Your task to perform on an android device: visit the assistant section in the google photos Image 0: 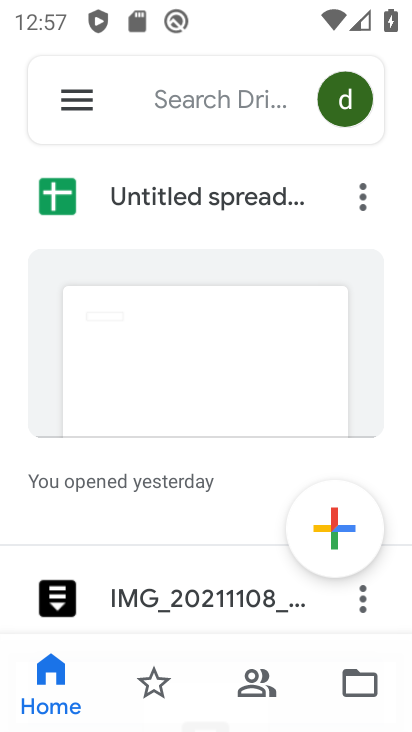
Step 0: press home button
Your task to perform on an android device: visit the assistant section in the google photos Image 1: 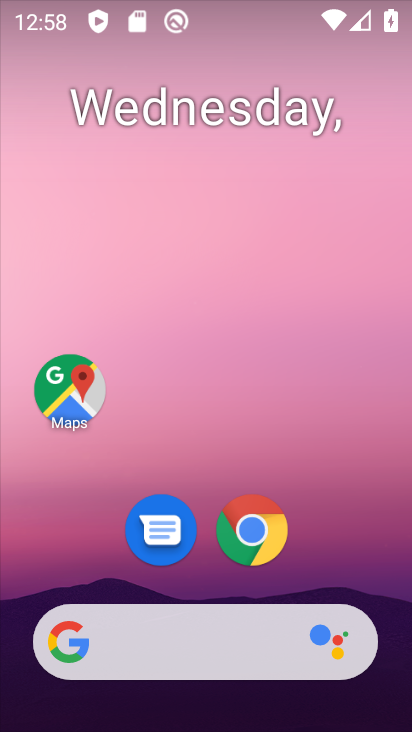
Step 1: drag from (203, 570) to (218, 28)
Your task to perform on an android device: visit the assistant section in the google photos Image 2: 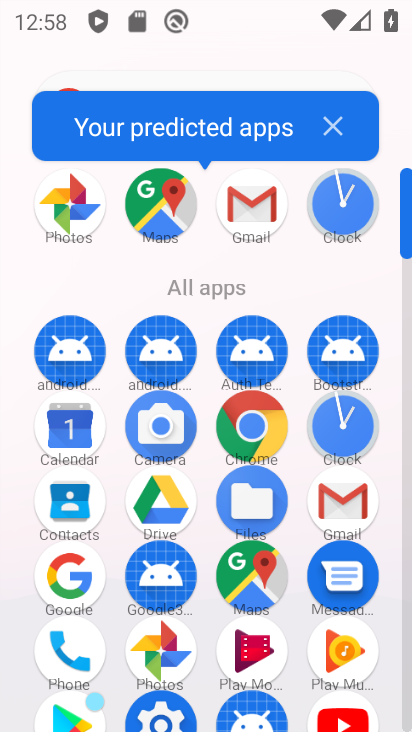
Step 2: click (94, 196)
Your task to perform on an android device: visit the assistant section in the google photos Image 3: 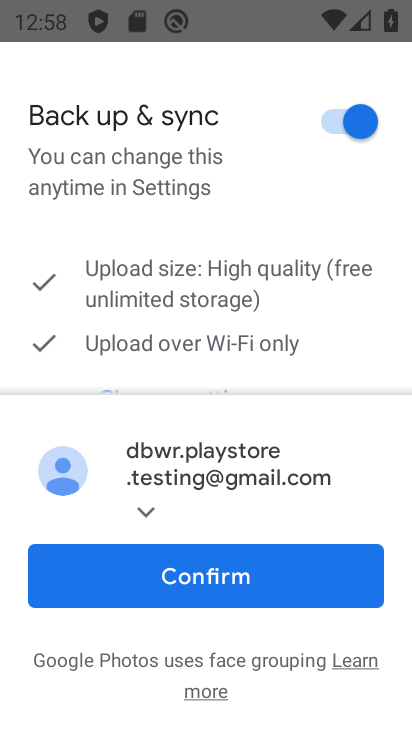
Step 3: click (94, 196)
Your task to perform on an android device: visit the assistant section in the google photos Image 4: 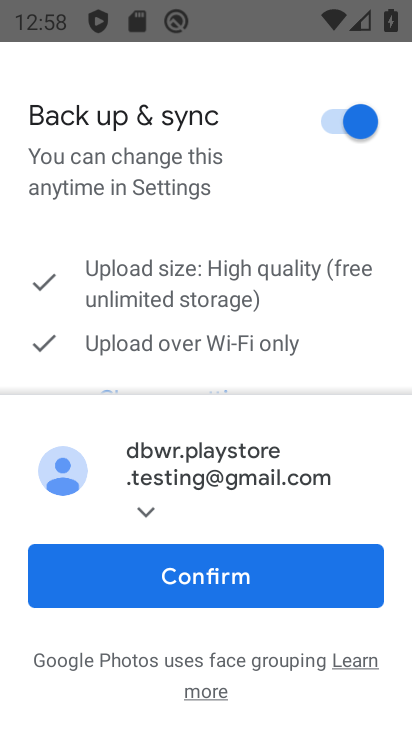
Step 4: click (258, 570)
Your task to perform on an android device: visit the assistant section in the google photos Image 5: 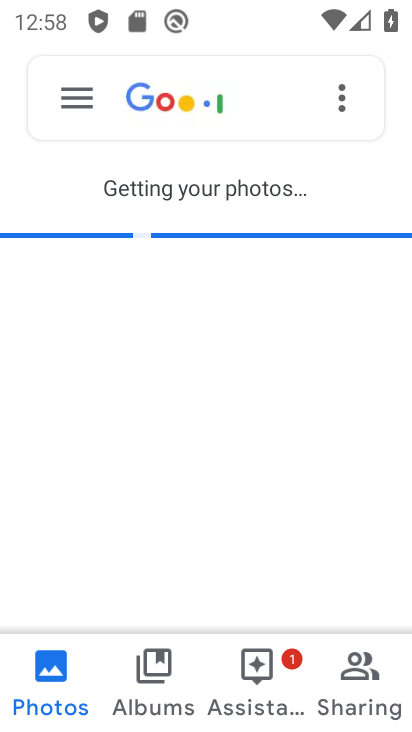
Step 5: click (262, 671)
Your task to perform on an android device: visit the assistant section in the google photos Image 6: 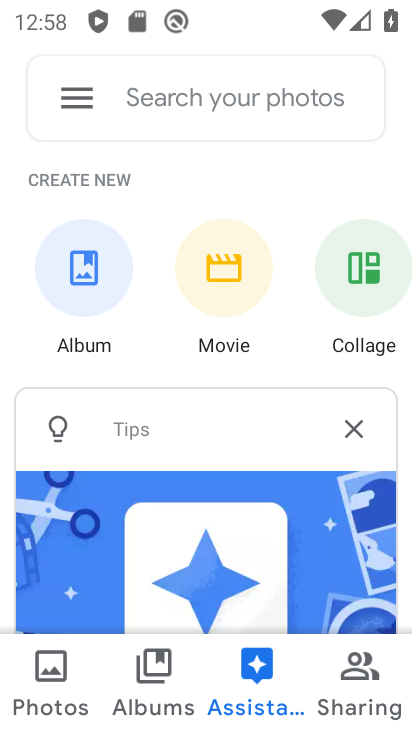
Step 6: task complete